Your task to perform on an android device: Go to Yahoo.com Image 0: 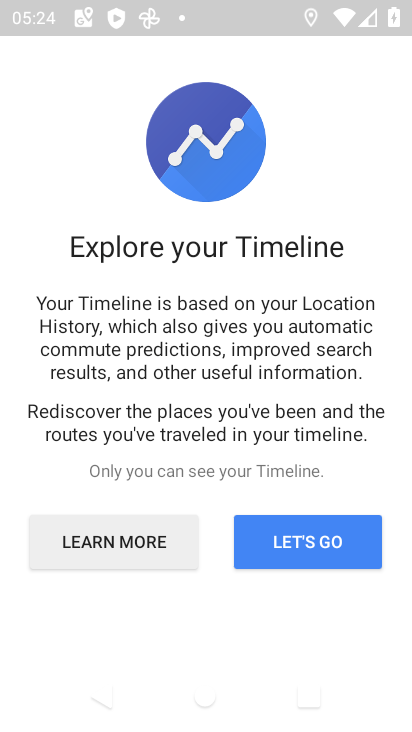
Step 0: press home button
Your task to perform on an android device: Go to Yahoo.com Image 1: 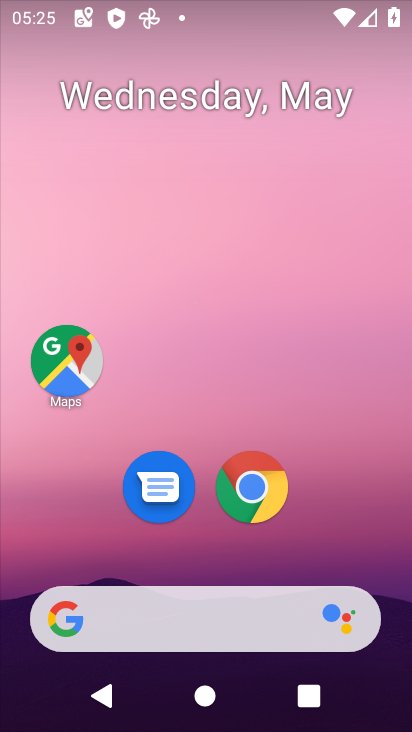
Step 1: drag from (371, 504) to (264, 103)
Your task to perform on an android device: Go to Yahoo.com Image 2: 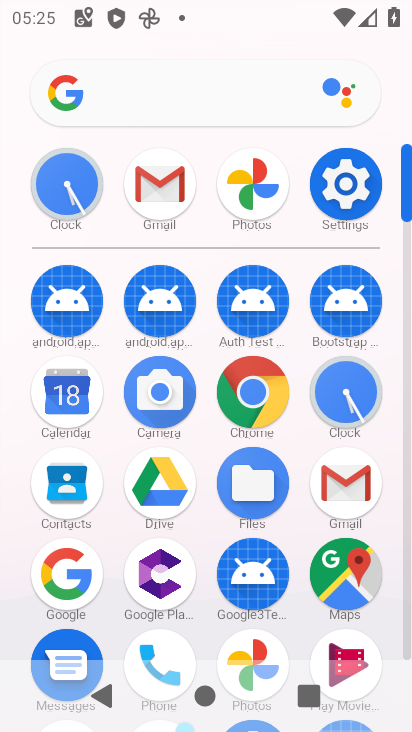
Step 2: click (176, 199)
Your task to perform on an android device: Go to Yahoo.com Image 3: 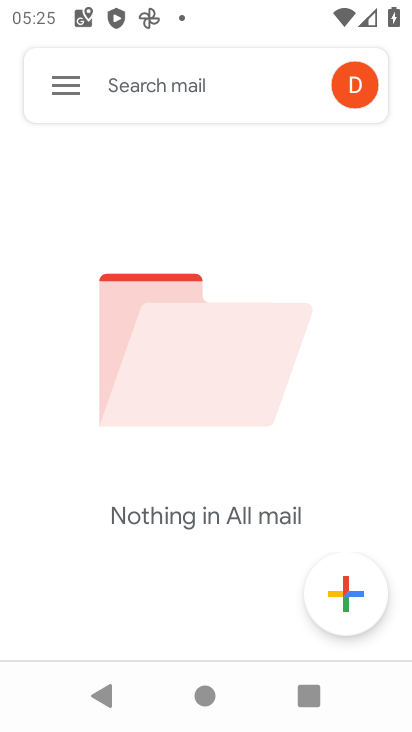
Step 3: press back button
Your task to perform on an android device: Go to Yahoo.com Image 4: 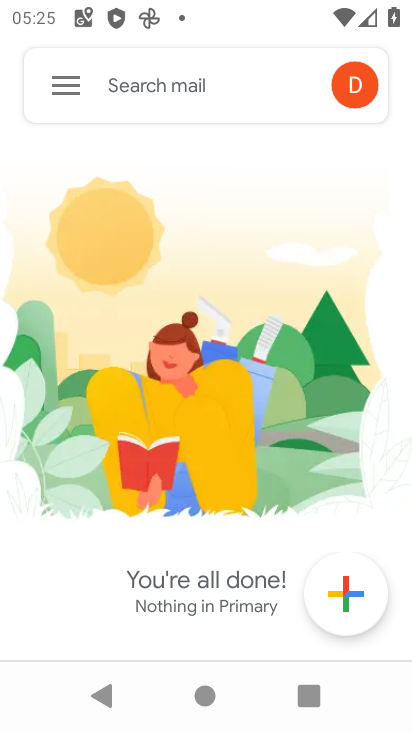
Step 4: press home button
Your task to perform on an android device: Go to Yahoo.com Image 5: 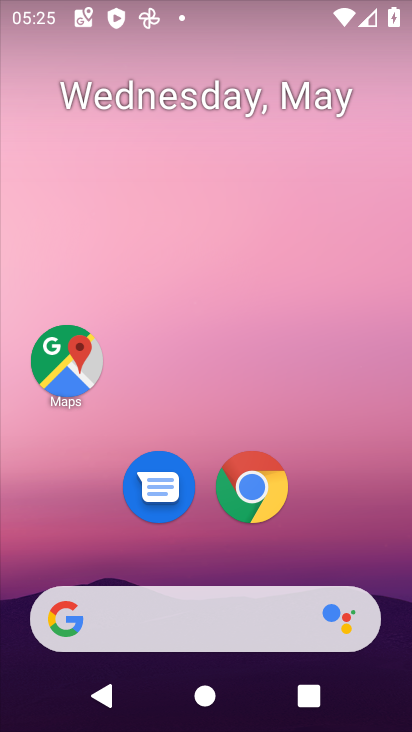
Step 5: click (309, 512)
Your task to perform on an android device: Go to Yahoo.com Image 6: 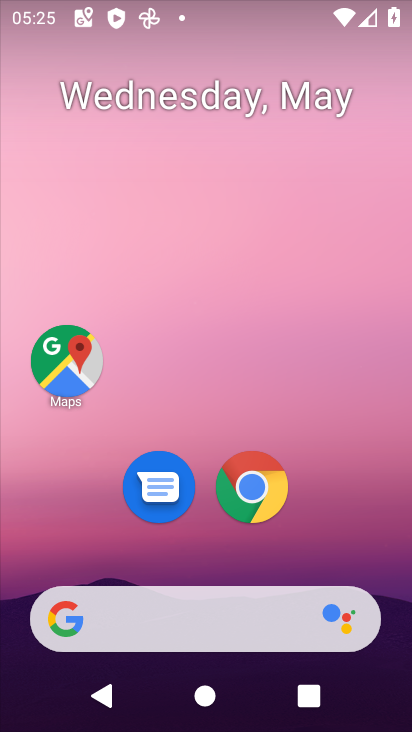
Step 6: click (278, 502)
Your task to perform on an android device: Go to Yahoo.com Image 7: 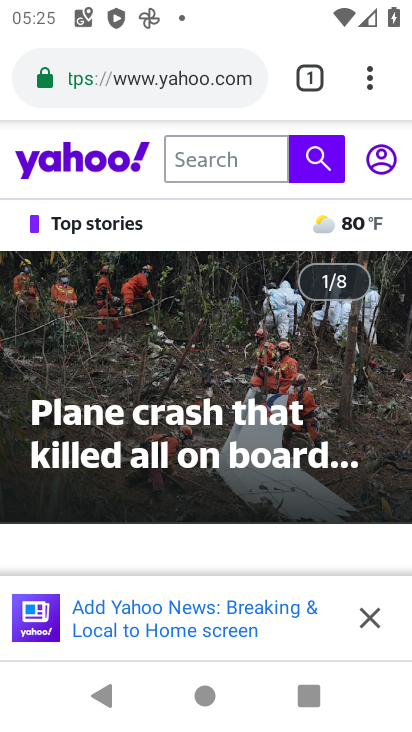
Step 7: task complete